Your task to perform on an android device: set the timer Image 0: 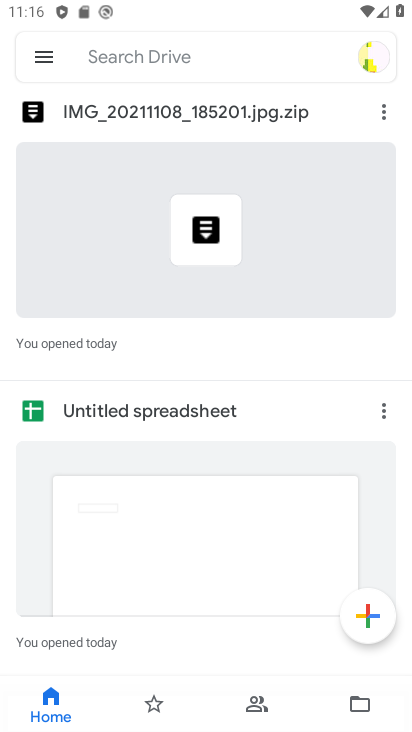
Step 0: press home button
Your task to perform on an android device: set the timer Image 1: 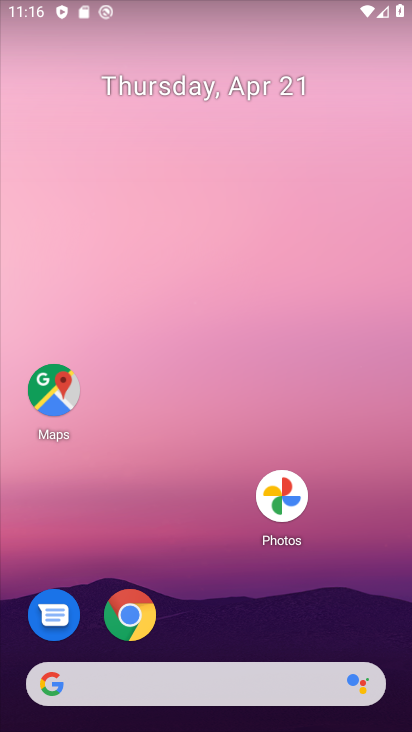
Step 1: drag from (270, 702) to (241, 94)
Your task to perform on an android device: set the timer Image 2: 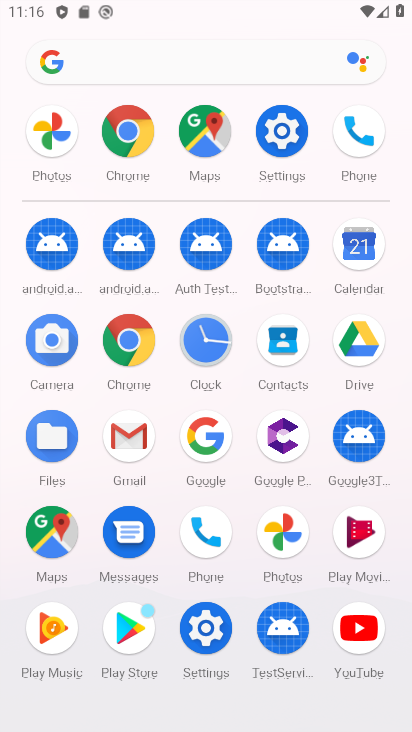
Step 2: click (188, 344)
Your task to perform on an android device: set the timer Image 3: 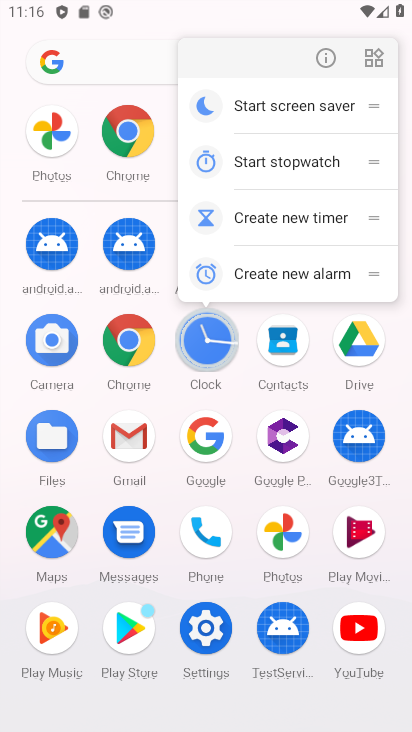
Step 3: click (190, 342)
Your task to perform on an android device: set the timer Image 4: 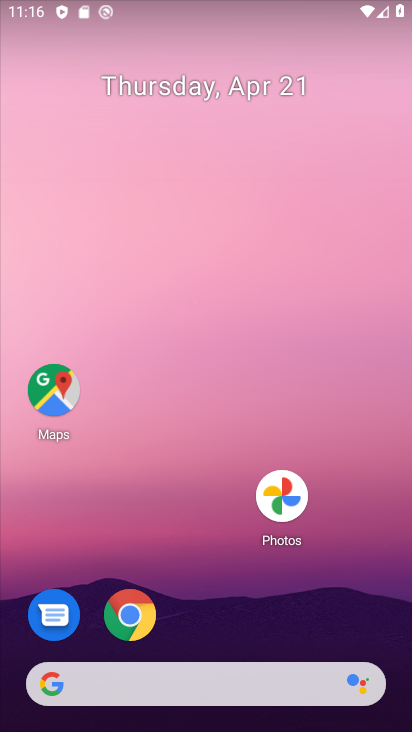
Step 4: drag from (248, 663) to (166, 152)
Your task to perform on an android device: set the timer Image 5: 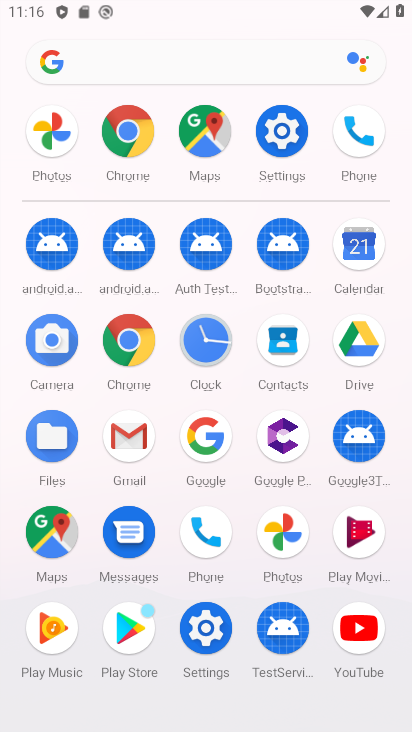
Step 5: click (209, 345)
Your task to perform on an android device: set the timer Image 6: 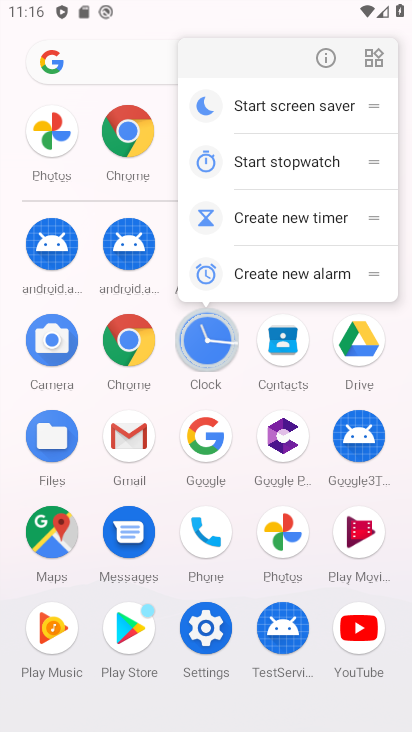
Step 6: click (210, 341)
Your task to perform on an android device: set the timer Image 7: 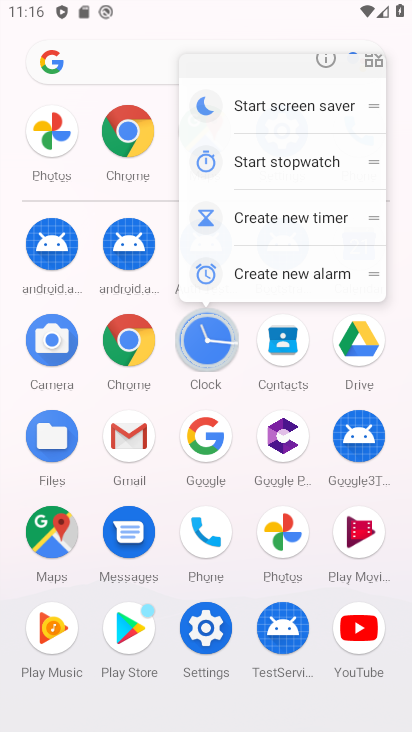
Step 7: click (210, 341)
Your task to perform on an android device: set the timer Image 8: 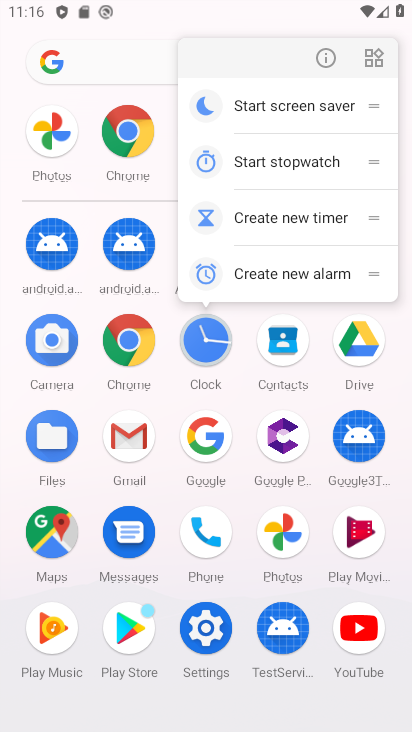
Step 8: click (210, 341)
Your task to perform on an android device: set the timer Image 9: 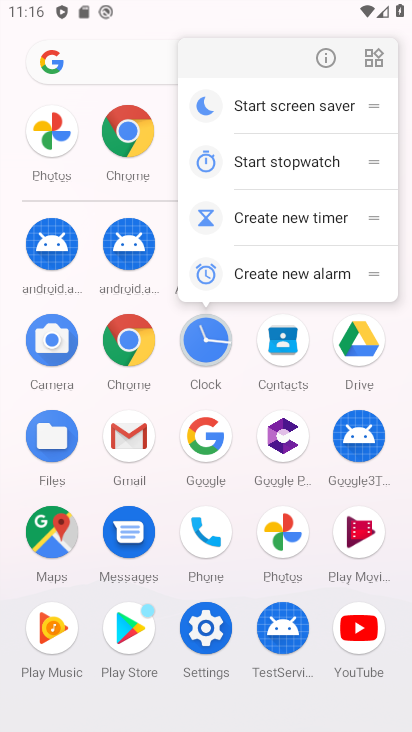
Step 9: click (210, 341)
Your task to perform on an android device: set the timer Image 10: 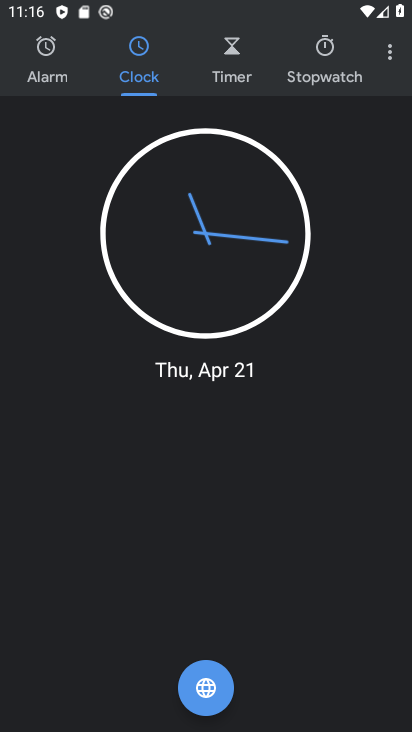
Step 10: click (232, 72)
Your task to perform on an android device: set the timer Image 11: 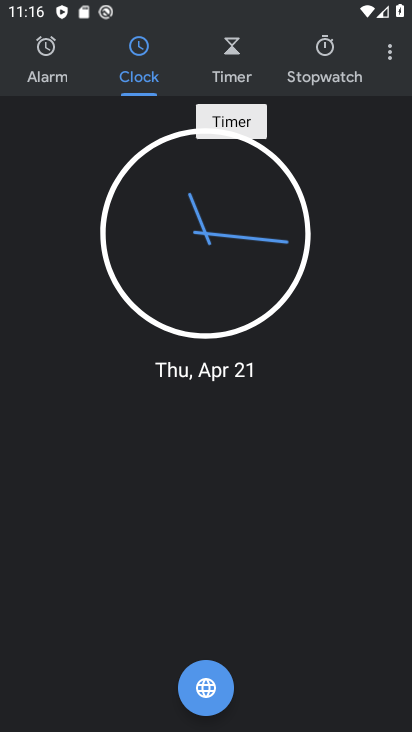
Step 11: click (232, 72)
Your task to perform on an android device: set the timer Image 12: 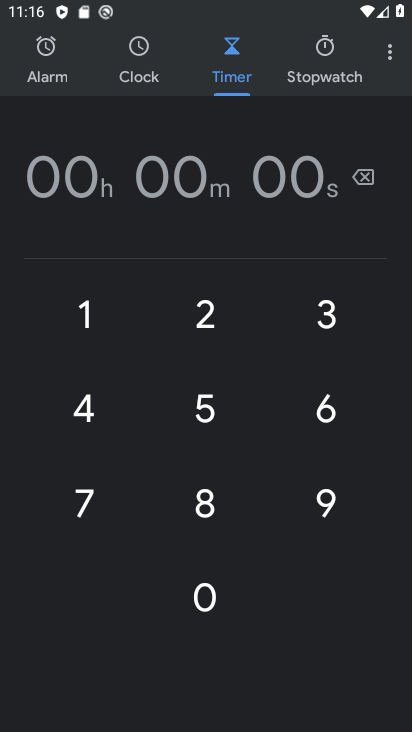
Step 12: click (209, 496)
Your task to perform on an android device: set the timer Image 13: 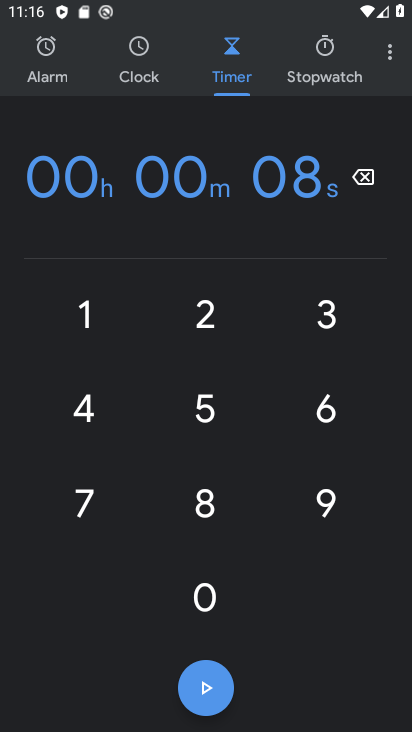
Step 13: click (200, 687)
Your task to perform on an android device: set the timer Image 14: 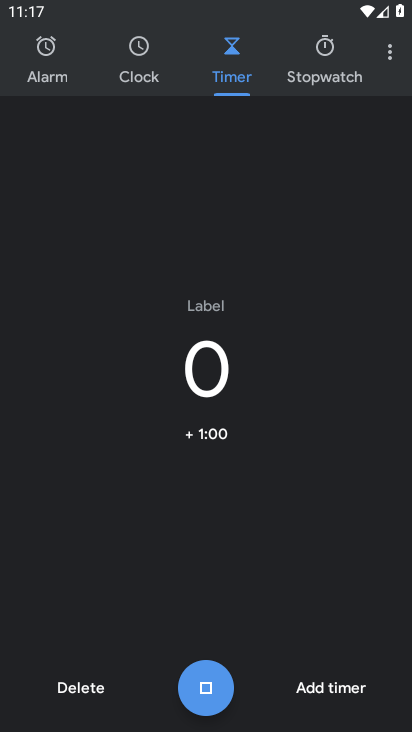
Step 14: click (200, 686)
Your task to perform on an android device: set the timer Image 15: 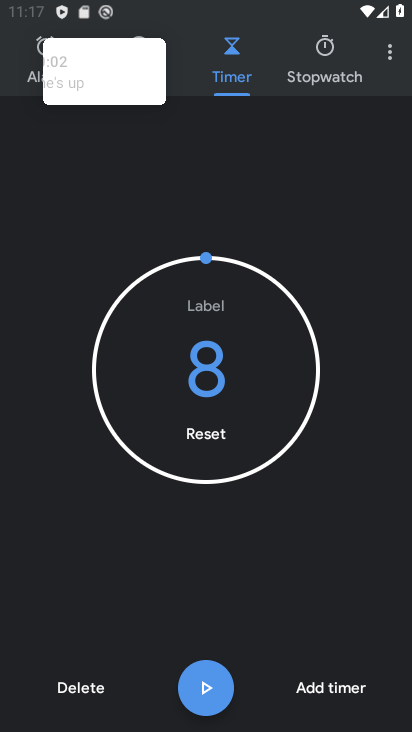
Step 15: task complete